Your task to perform on an android device: see tabs open on other devices in the chrome app Image 0: 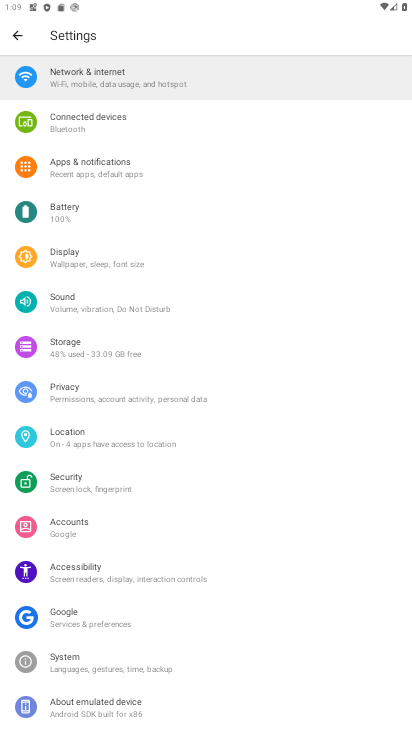
Step 0: press home button
Your task to perform on an android device: see tabs open on other devices in the chrome app Image 1: 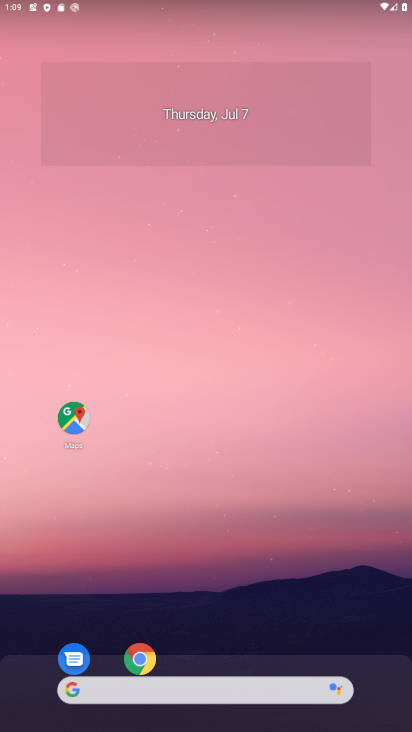
Step 1: drag from (149, 508) to (183, 75)
Your task to perform on an android device: see tabs open on other devices in the chrome app Image 2: 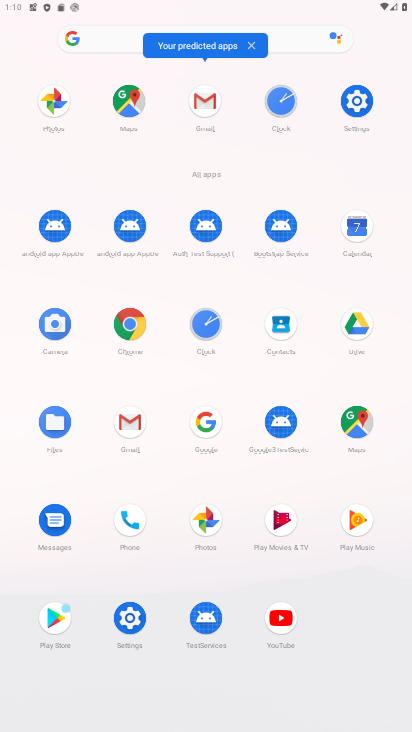
Step 2: click (126, 322)
Your task to perform on an android device: see tabs open on other devices in the chrome app Image 3: 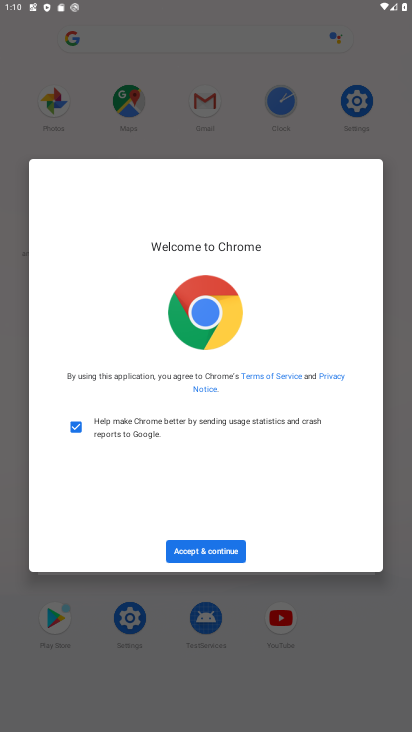
Step 3: click (223, 543)
Your task to perform on an android device: see tabs open on other devices in the chrome app Image 4: 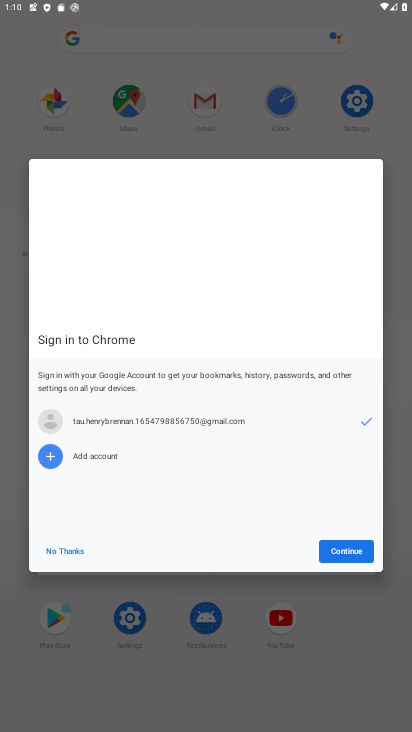
Step 4: click (342, 555)
Your task to perform on an android device: see tabs open on other devices in the chrome app Image 5: 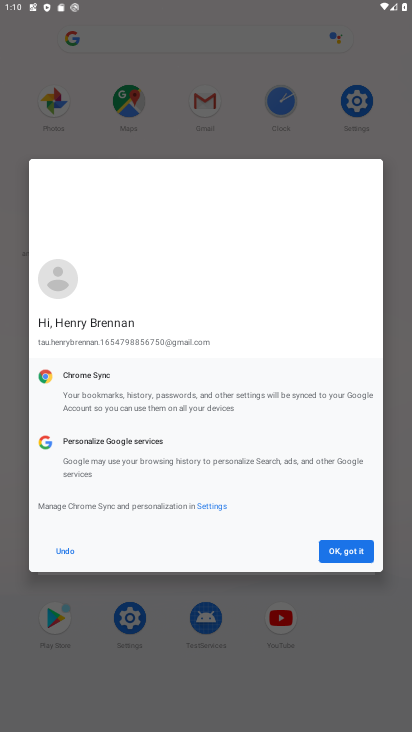
Step 5: click (346, 548)
Your task to perform on an android device: see tabs open on other devices in the chrome app Image 6: 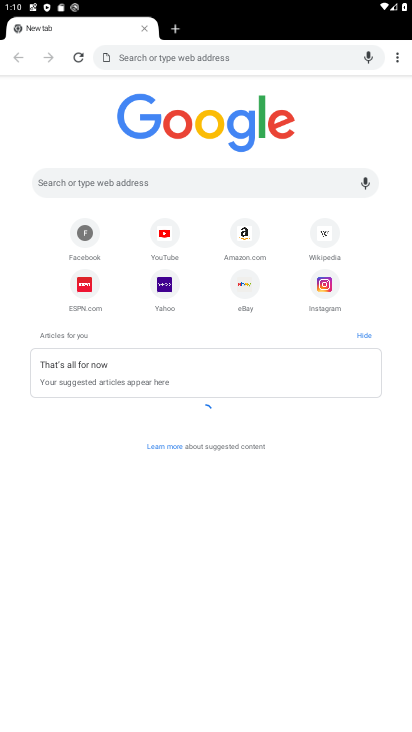
Step 6: task complete